Your task to perform on an android device: turn on the 24-hour format for clock Image 0: 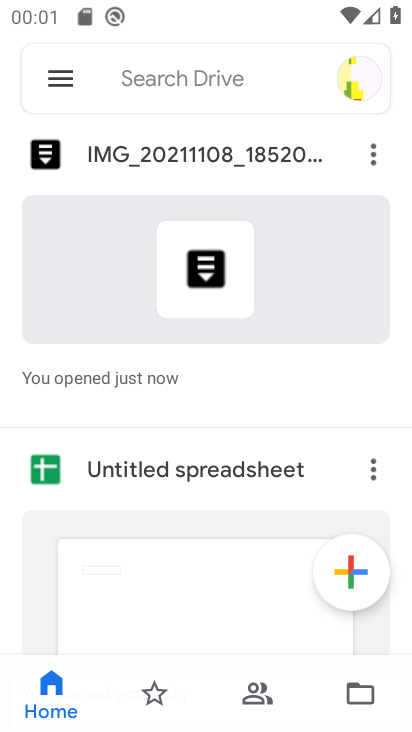
Step 0: press home button
Your task to perform on an android device: turn on the 24-hour format for clock Image 1: 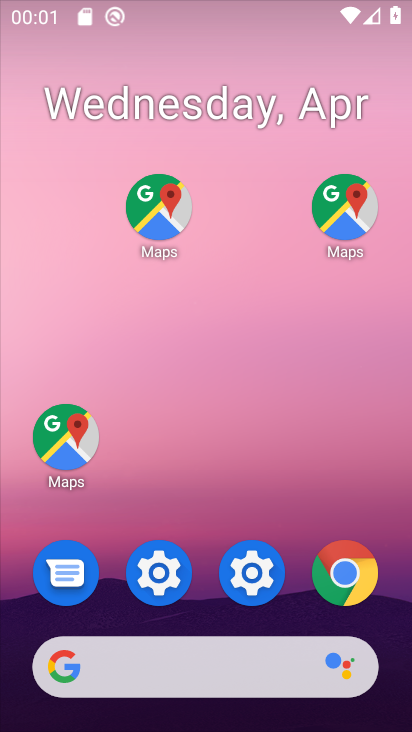
Step 1: drag from (242, 562) to (169, 190)
Your task to perform on an android device: turn on the 24-hour format for clock Image 2: 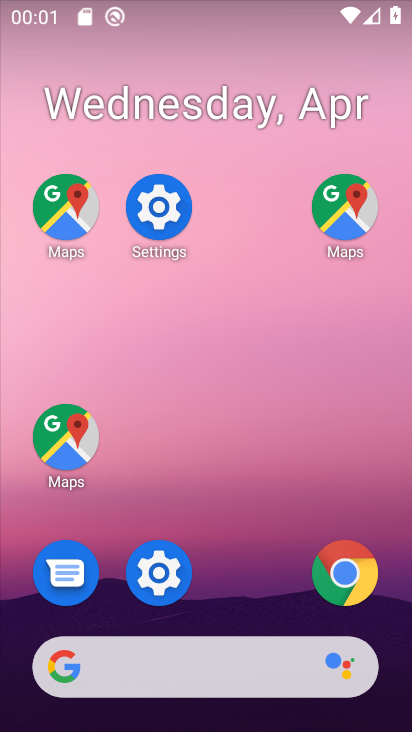
Step 2: drag from (138, 281) to (129, 219)
Your task to perform on an android device: turn on the 24-hour format for clock Image 3: 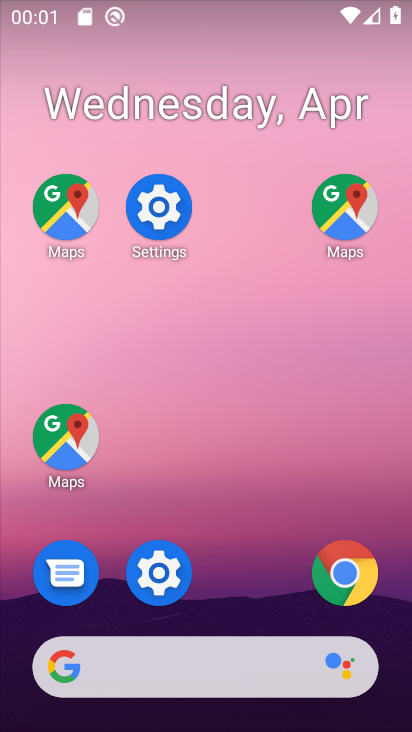
Step 3: drag from (209, 481) to (170, 108)
Your task to perform on an android device: turn on the 24-hour format for clock Image 4: 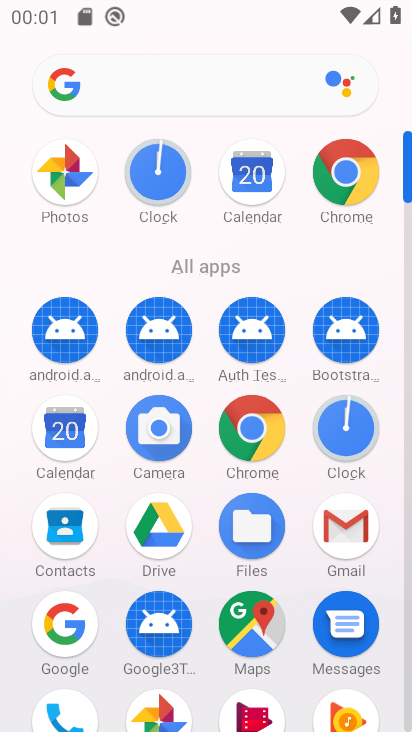
Step 4: click (341, 431)
Your task to perform on an android device: turn on the 24-hour format for clock Image 5: 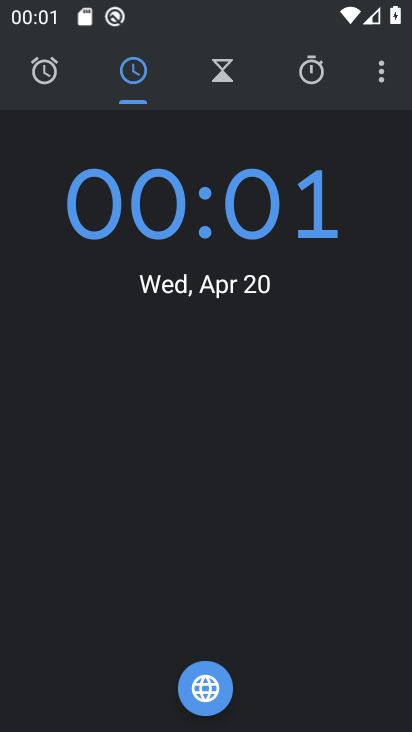
Step 5: click (380, 77)
Your task to perform on an android device: turn on the 24-hour format for clock Image 6: 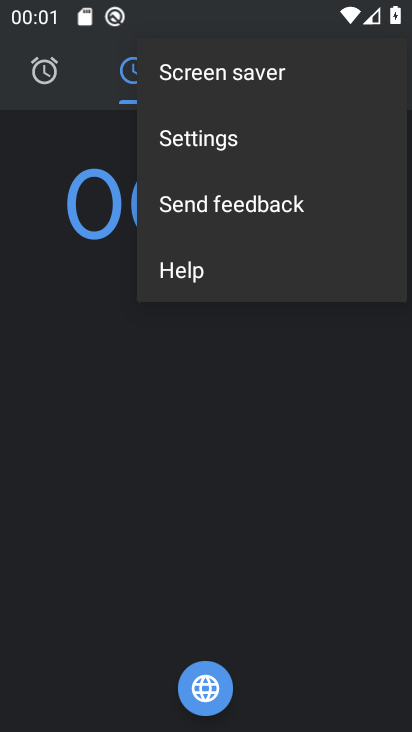
Step 6: click (185, 144)
Your task to perform on an android device: turn on the 24-hour format for clock Image 7: 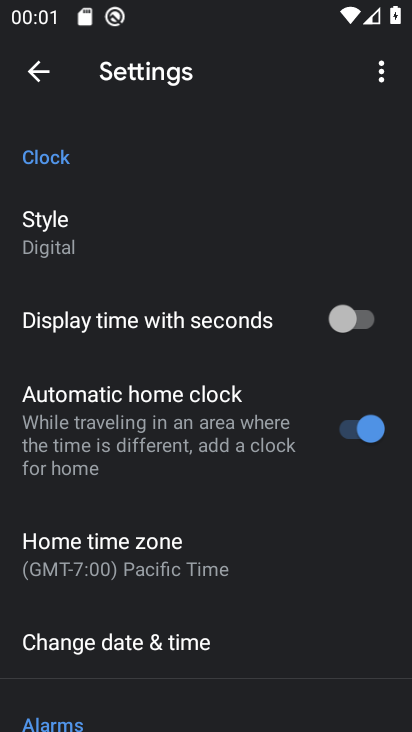
Step 7: click (169, 640)
Your task to perform on an android device: turn on the 24-hour format for clock Image 8: 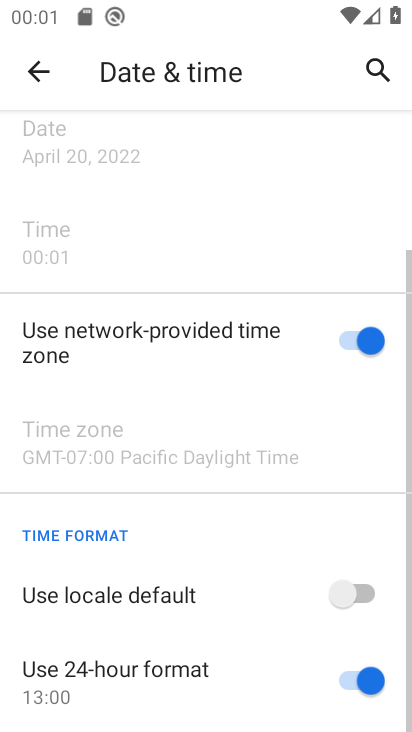
Step 8: task complete